Your task to perform on an android device: toggle sleep mode Image 0: 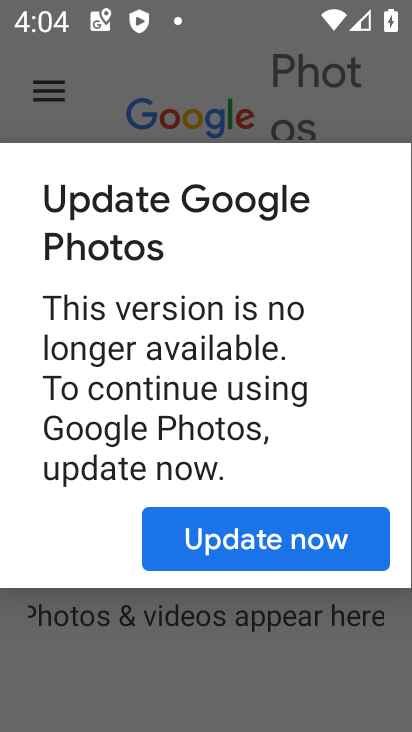
Step 0: press home button
Your task to perform on an android device: toggle sleep mode Image 1: 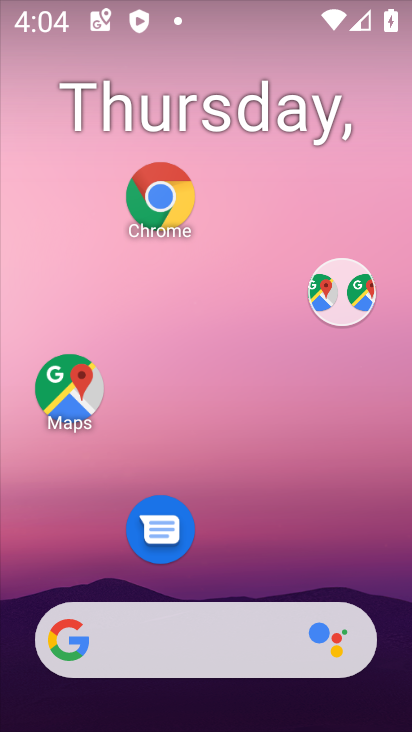
Step 1: drag from (217, 597) to (246, 176)
Your task to perform on an android device: toggle sleep mode Image 2: 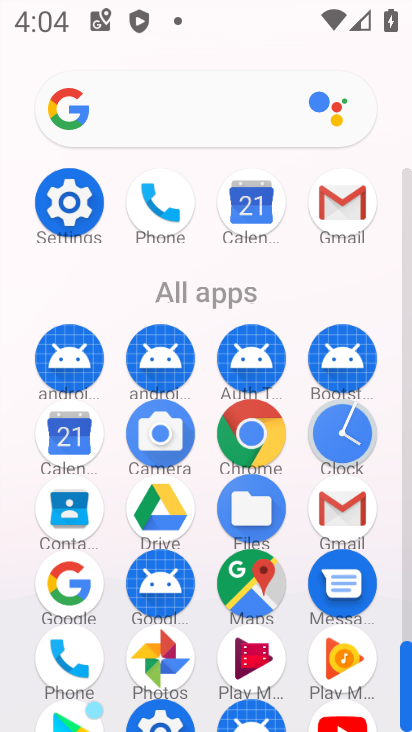
Step 2: click (61, 185)
Your task to perform on an android device: toggle sleep mode Image 3: 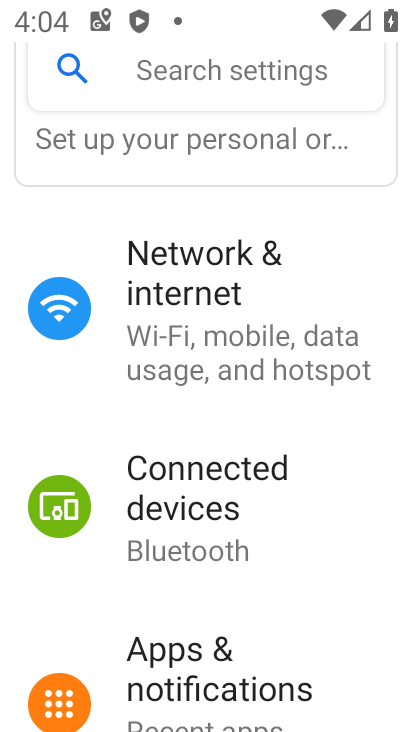
Step 3: drag from (228, 555) to (94, 73)
Your task to perform on an android device: toggle sleep mode Image 4: 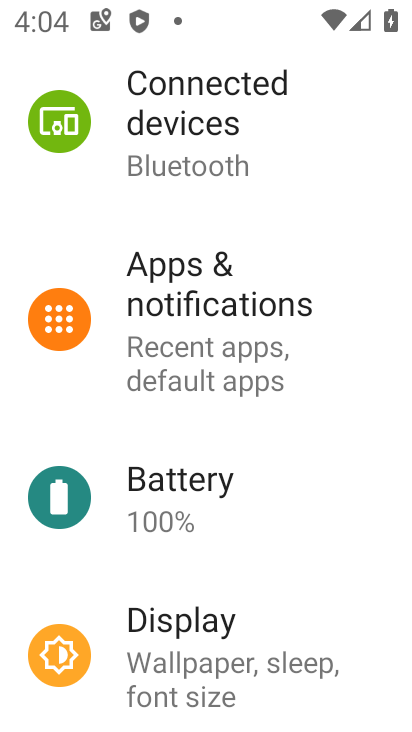
Step 4: drag from (169, 603) to (162, 309)
Your task to perform on an android device: toggle sleep mode Image 5: 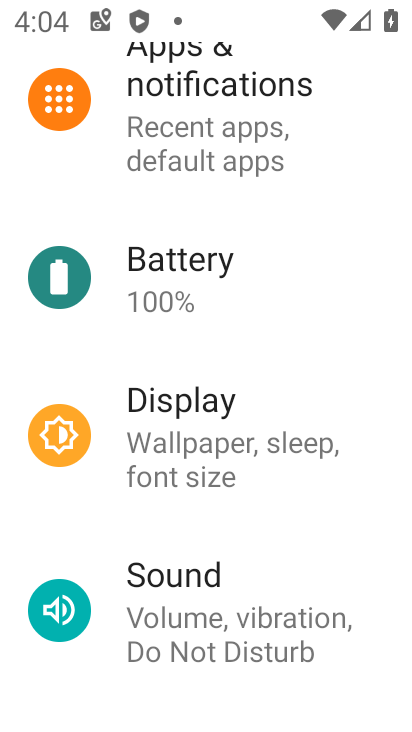
Step 5: drag from (209, 508) to (204, 199)
Your task to perform on an android device: toggle sleep mode Image 6: 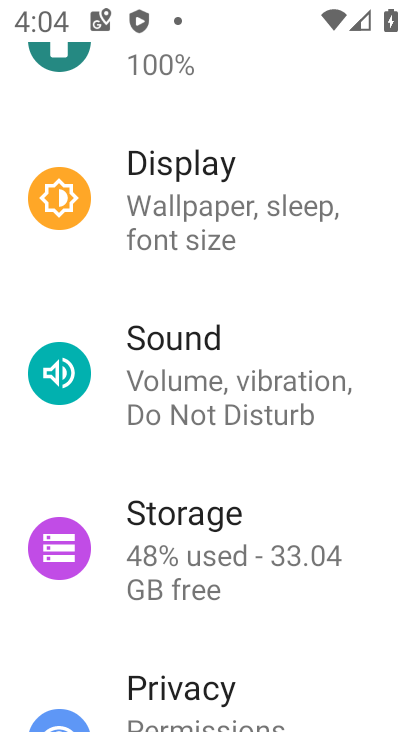
Step 6: click (208, 151)
Your task to perform on an android device: toggle sleep mode Image 7: 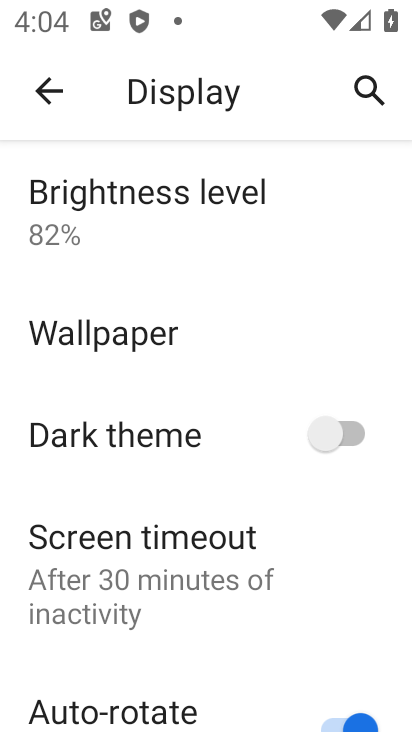
Step 7: drag from (202, 513) to (182, 279)
Your task to perform on an android device: toggle sleep mode Image 8: 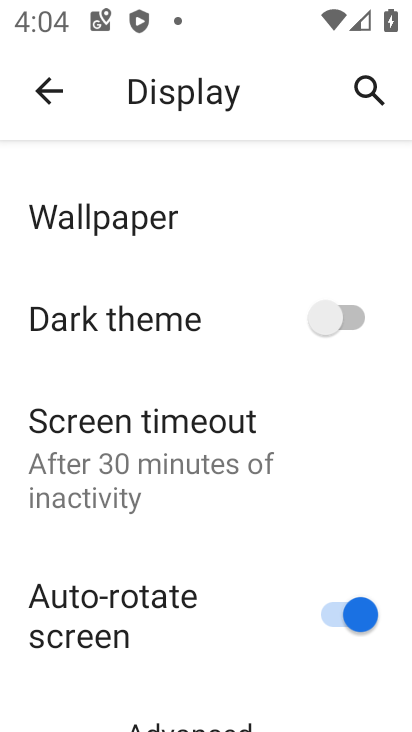
Step 8: click (174, 409)
Your task to perform on an android device: toggle sleep mode Image 9: 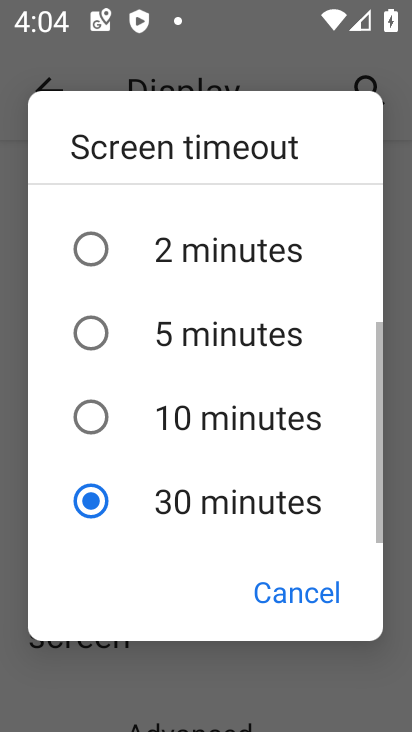
Step 9: click (206, 385)
Your task to perform on an android device: toggle sleep mode Image 10: 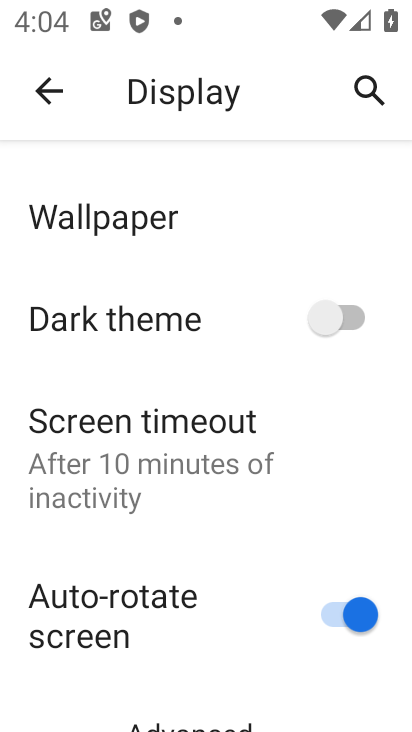
Step 10: task complete